Your task to perform on an android device: turn on showing notifications on the lock screen Image 0: 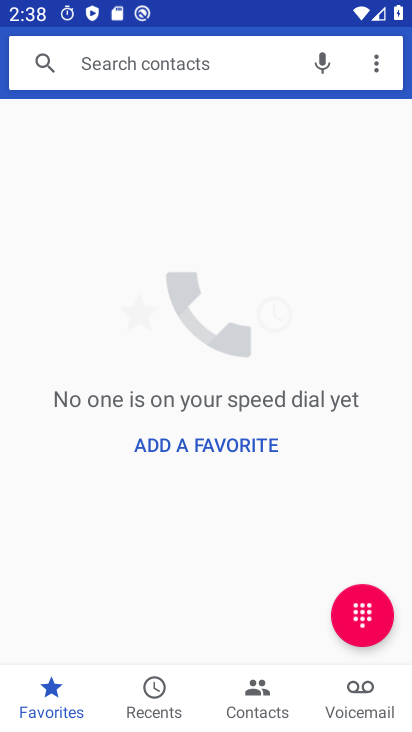
Step 0: press back button
Your task to perform on an android device: turn on showing notifications on the lock screen Image 1: 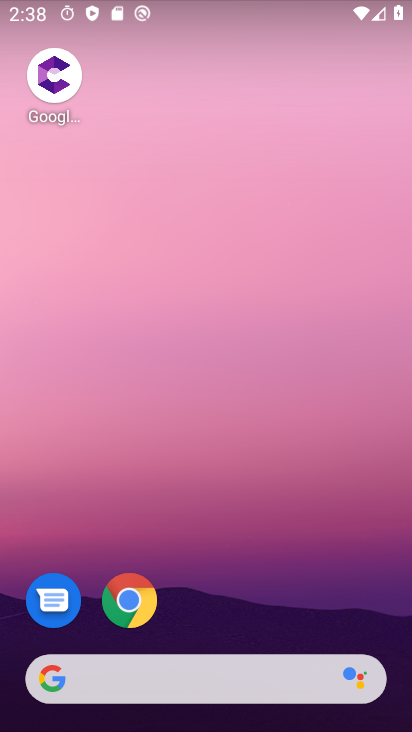
Step 1: drag from (269, 556) to (238, 0)
Your task to perform on an android device: turn on showing notifications on the lock screen Image 2: 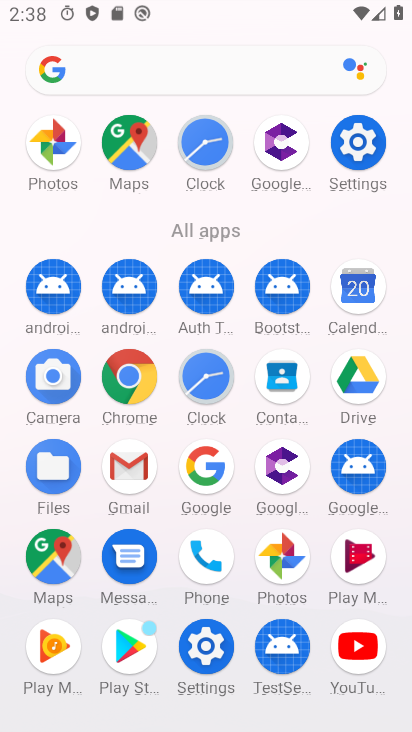
Step 2: drag from (4, 535) to (33, 291)
Your task to perform on an android device: turn on showing notifications on the lock screen Image 3: 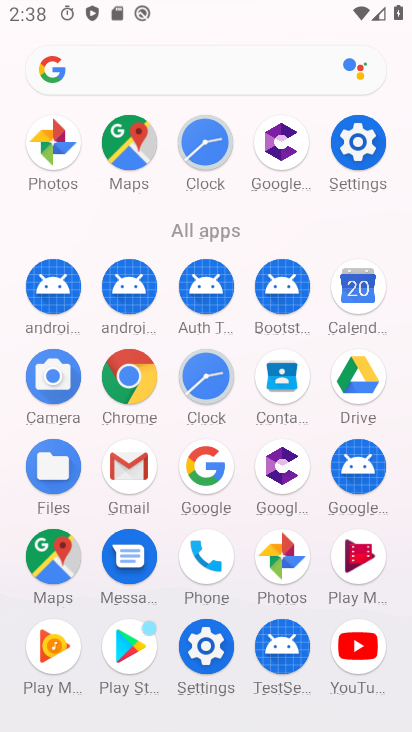
Step 3: click (205, 642)
Your task to perform on an android device: turn on showing notifications on the lock screen Image 4: 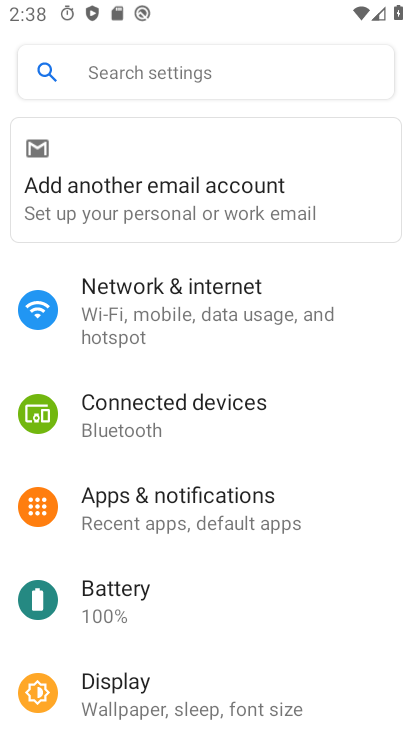
Step 4: drag from (226, 607) to (228, 203)
Your task to perform on an android device: turn on showing notifications on the lock screen Image 5: 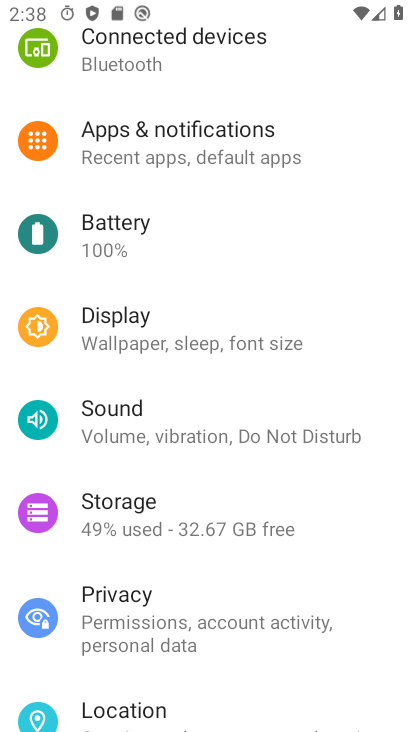
Step 5: drag from (228, 585) to (226, 143)
Your task to perform on an android device: turn on showing notifications on the lock screen Image 6: 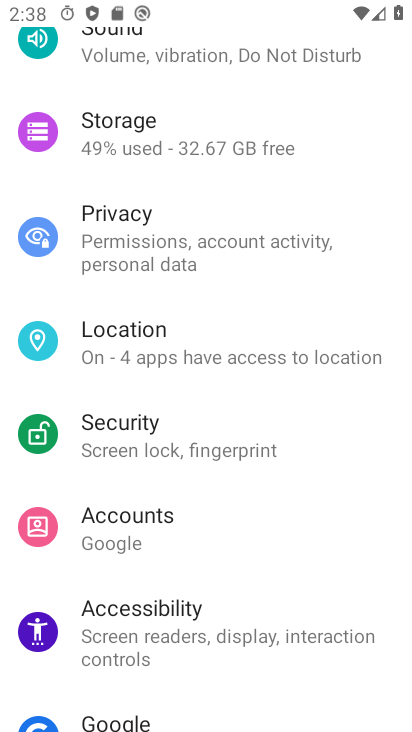
Step 6: drag from (232, 596) to (238, 139)
Your task to perform on an android device: turn on showing notifications on the lock screen Image 7: 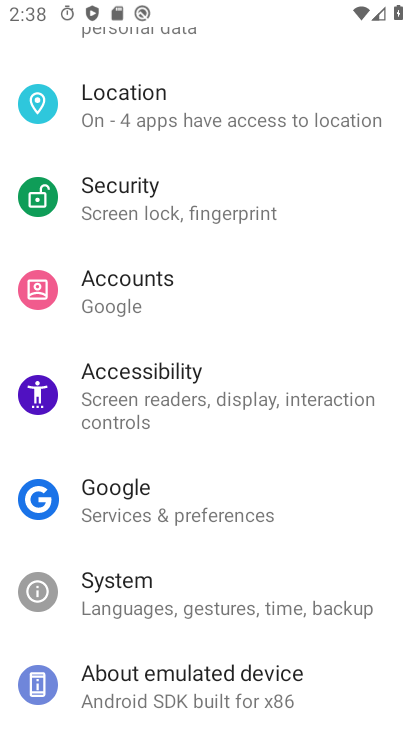
Step 7: drag from (244, 158) to (265, 650)
Your task to perform on an android device: turn on showing notifications on the lock screen Image 8: 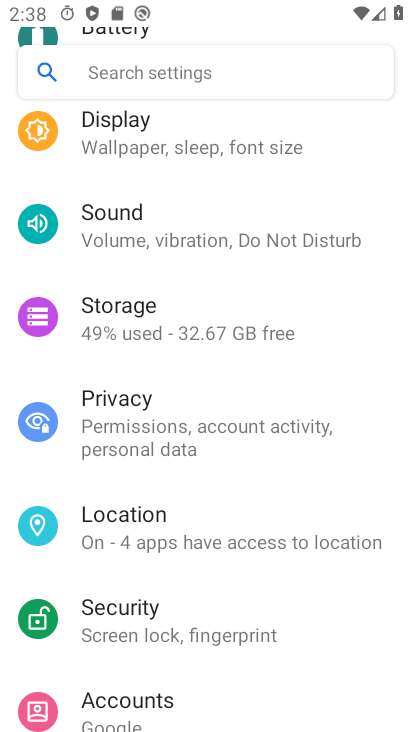
Step 8: drag from (263, 237) to (256, 674)
Your task to perform on an android device: turn on showing notifications on the lock screen Image 9: 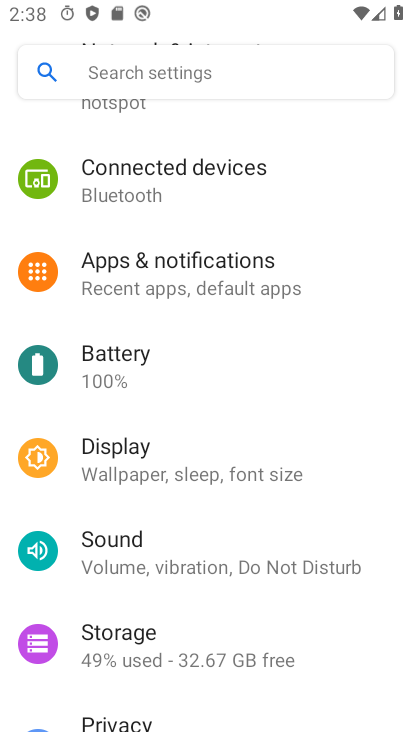
Step 9: click (218, 269)
Your task to perform on an android device: turn on showing notifications on the lock screen Image 10: 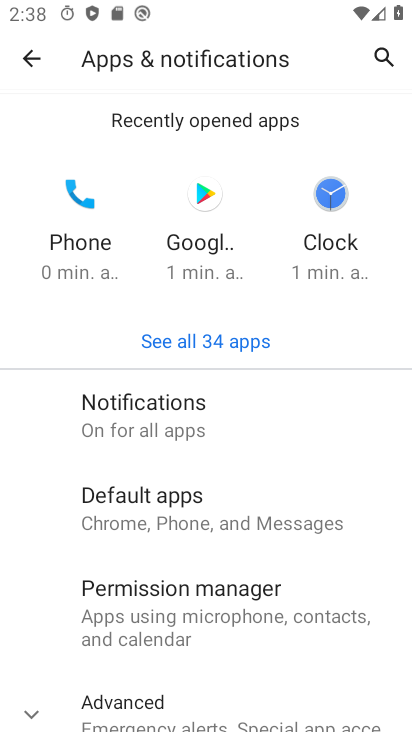
Step 10: click (32, 710)
Your task to perform on an android device: turn on showing notifications on the lock screen Image 11: 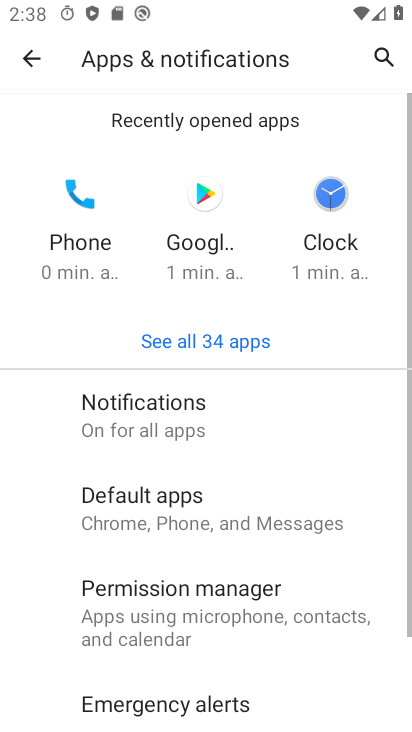
Step 11: drag from (291, 623) to (304, 282)
Your task to perform on an android device: turn on showing notifications on the lock screen Image 12: 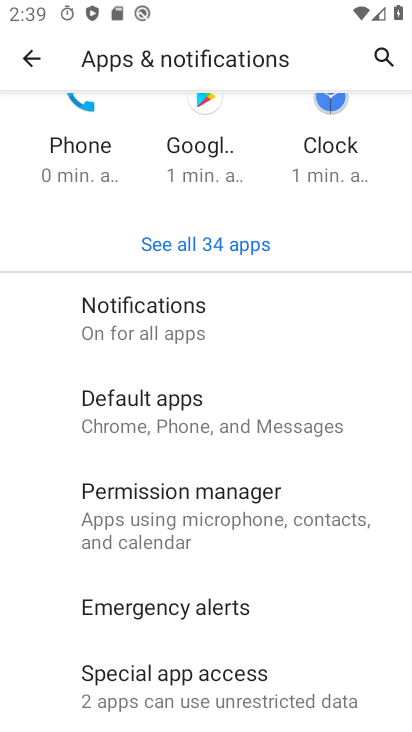
Step 12: click (232, 312)
Your task to perform on an android device: turn on showing notifications on the lock screen Image 13: 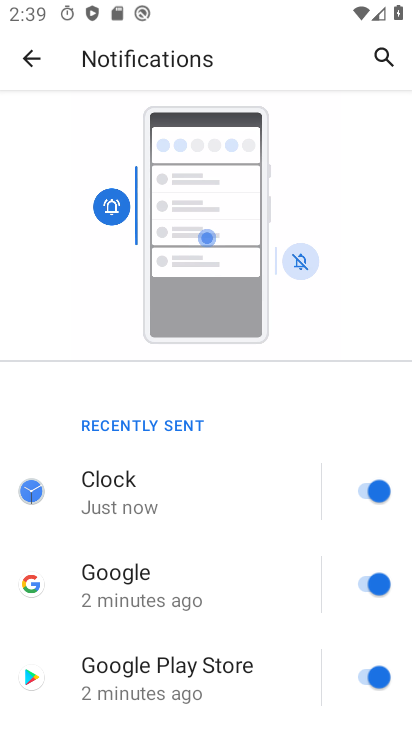
Step 13: drag from (210, 507) to (233, 161)
Your task to perform on an android device: turn on showing notifications on the lock screen Image 14: 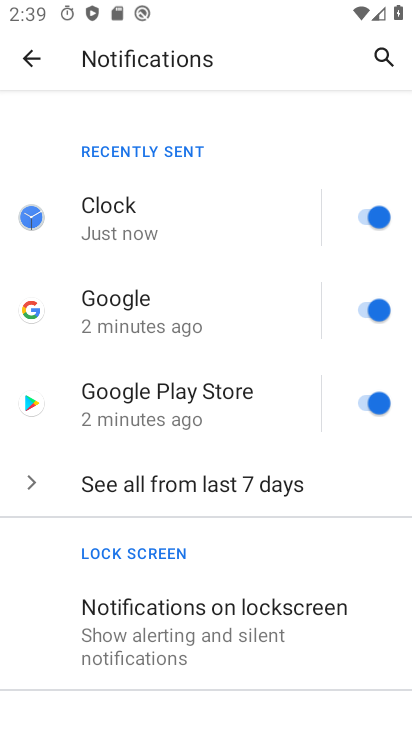
Step 14: drag from (225, 577) to (228, 174)
Your task to perform on an android device: turn on showing notifications on the lock screen Image 15: 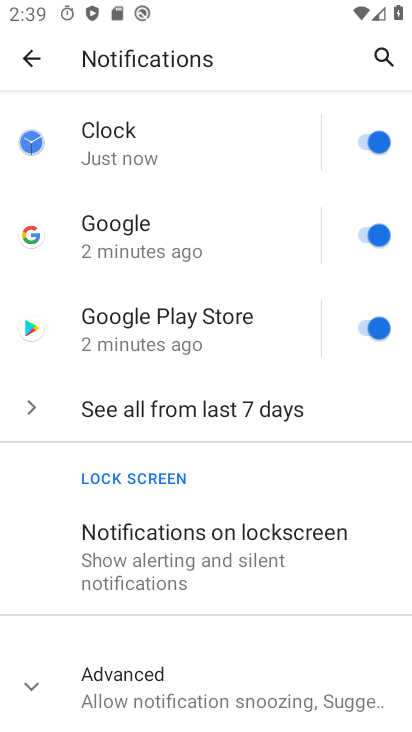
Step 15: click (196, 558)
Your task to perform on an android device: turn on showing notifications on the lock screen Image 16: 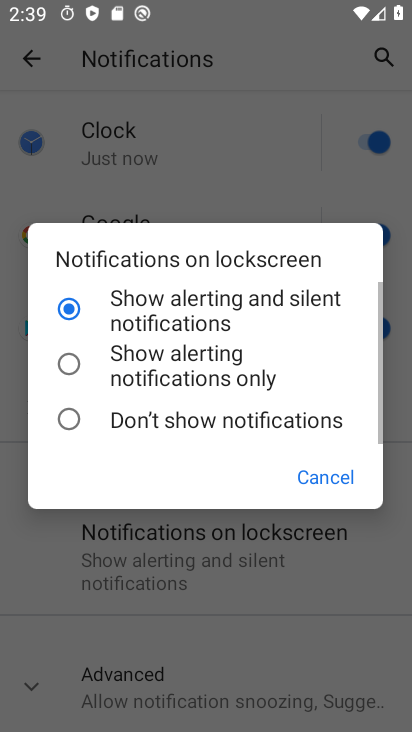
Step 16: click (160, 303)
Your task to perform on an android device: turn on showing notifications on the lock screen Image 17: 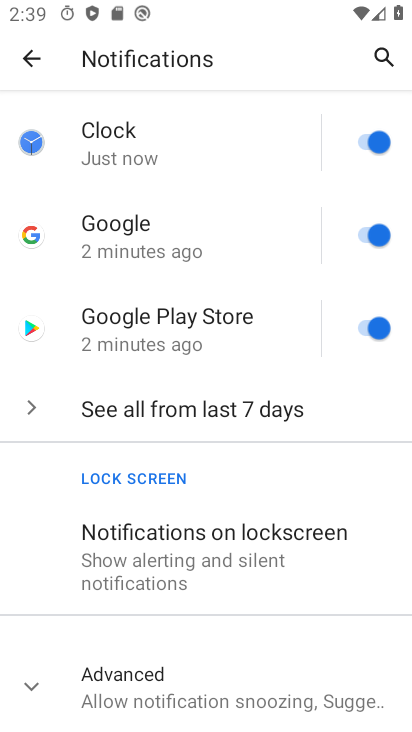
Step 17: task complete